Your task to perform on an android device: turn on wifi Image 0: 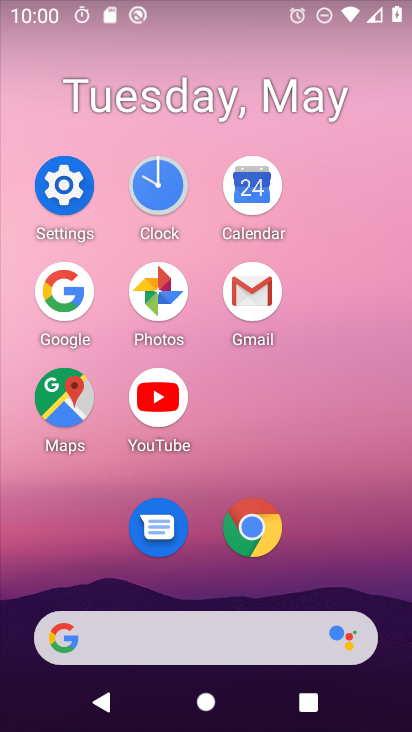
Step 0: click (81, 172)
Your task to perform on an android device: turn on wifi Image 1: 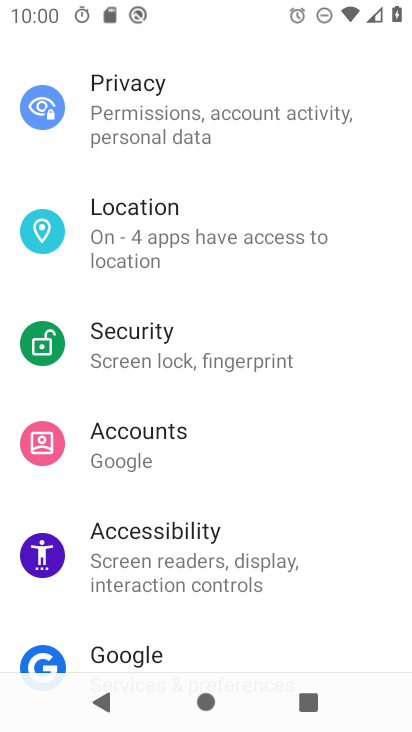
Step 1: drag from (277, 158) to (248, 544)
Your task to perform on an android device: turn on wifi Image 2: 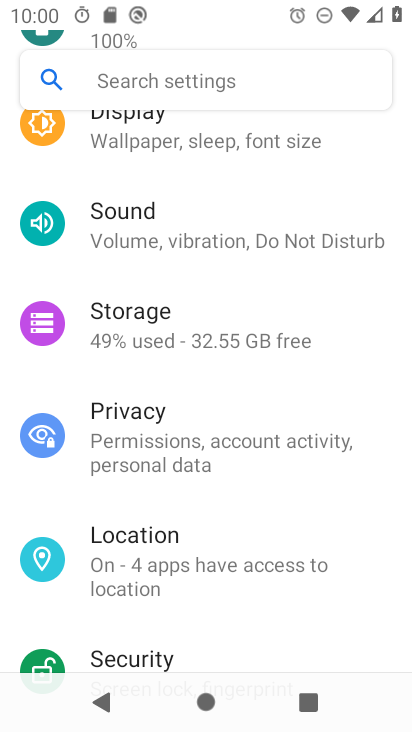
Step 2: drag from (248, 281) to (208, 667)
Your task to perform on an android device: turn on wifi Image 3: 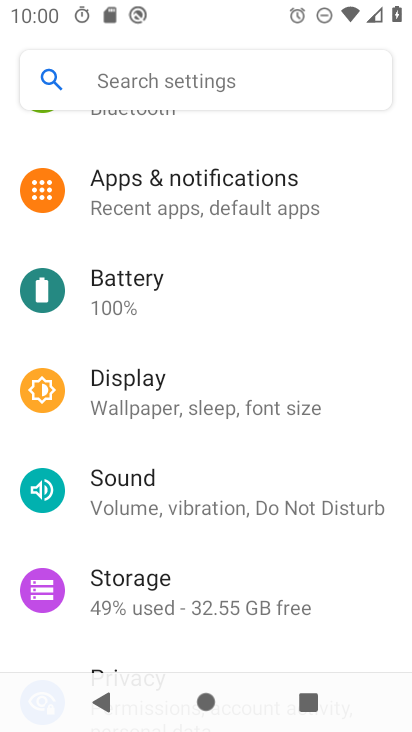
Step 3: drag from (268, 321) to (232, 623)
Your task to perform on an android device: turn on wifi Image 4: 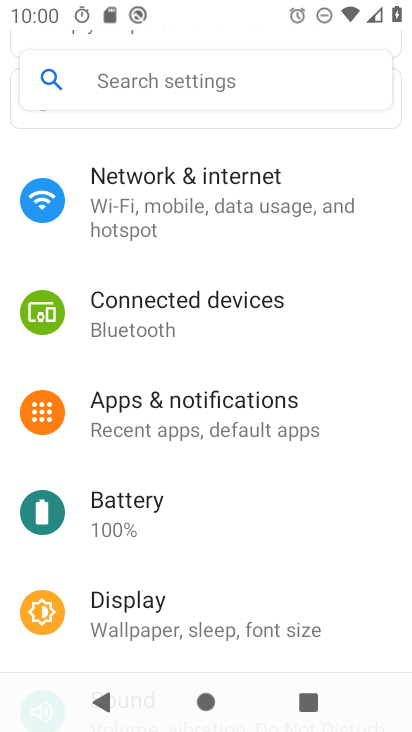
Step 4: click (269, 218)
Your task to perform on an android device: turn on wifi Image 5: 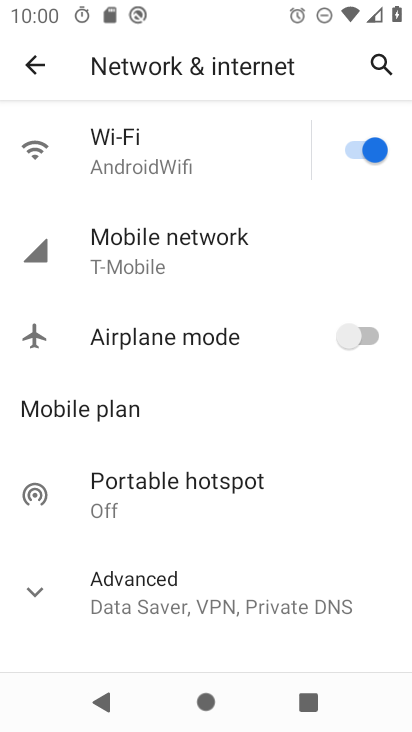
Step 5: task complete